Your task to perform on an android device: Show me the alarms in the clock app Image 0: 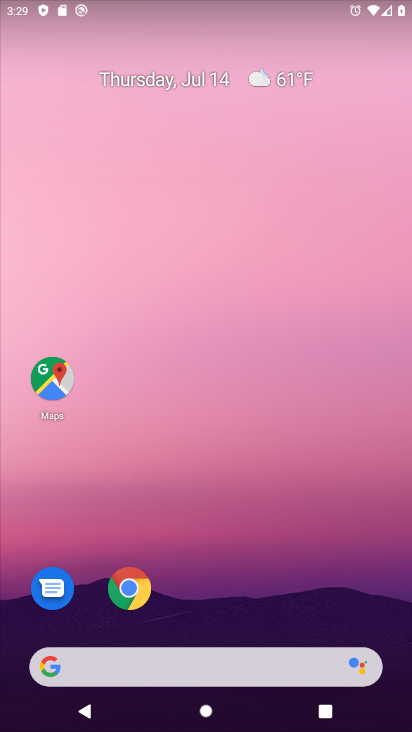
Step 0: press home button
Your task to perform on an android device: Show me the alarms in the clock app Image 1: 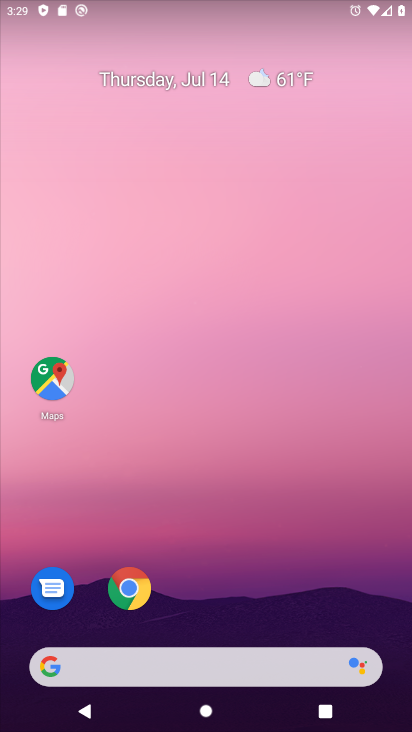
Step 1: drag from (297, 599) to (159, 76)
Your task to perform on an android device: Show me the alarms in the clock app Image 2: 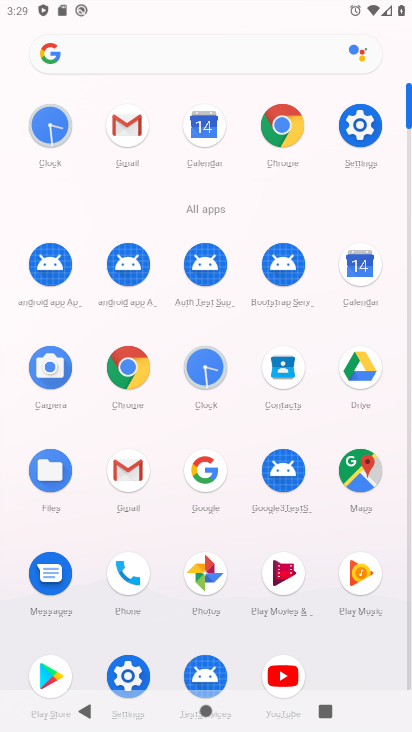
Step 2: click (54, 127)
Your task to perform on an android device: Show me the alarms in the clock app Image 3: 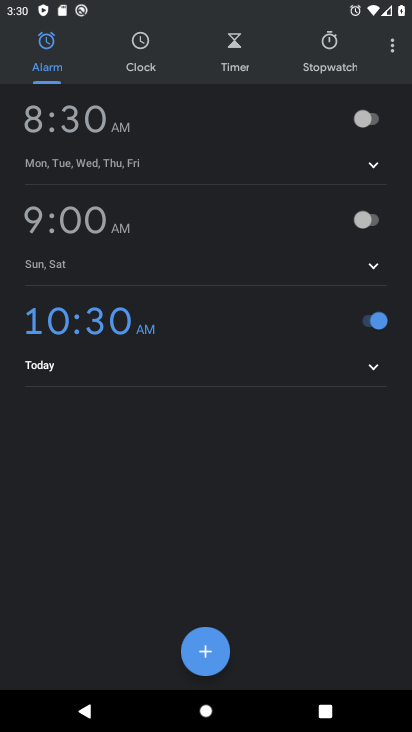
Step 3: click (54, 51)
Your task to perform on an android device: Show me the alarms in the clock app Image 4: 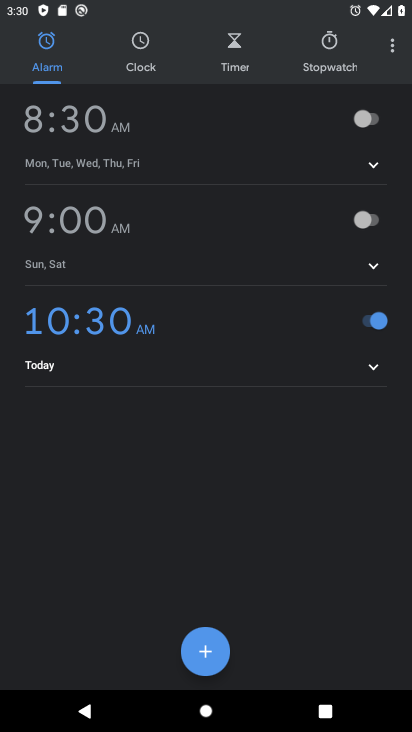
Step 4: task complete